Your task to perform on an android device: Is it going to rain today? Image 0: 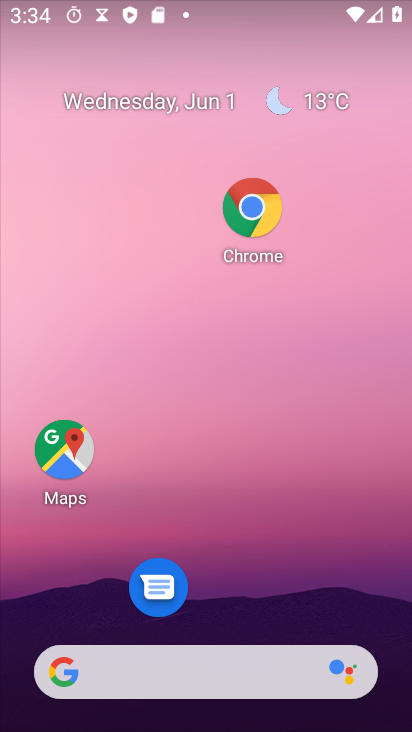
Step 0: drag from (244, 529) to (199, 236)
Your task to perform on an android device: Is it going to rain today? Image 1: 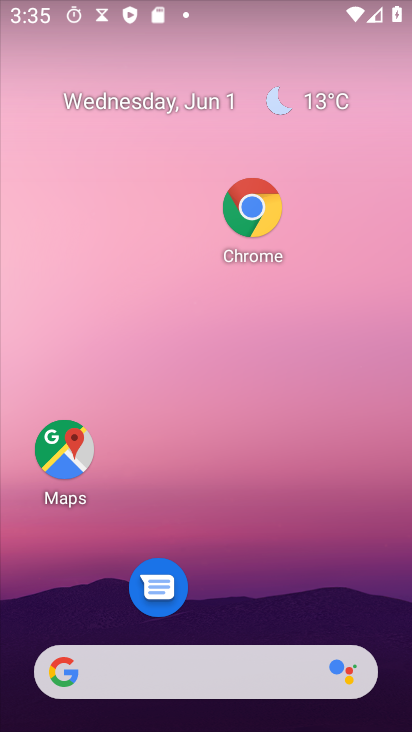
Step 1: drag from (9, 201) to (411, 377)
Your task to perform on an android device: Is it going to rain today? Image 2: 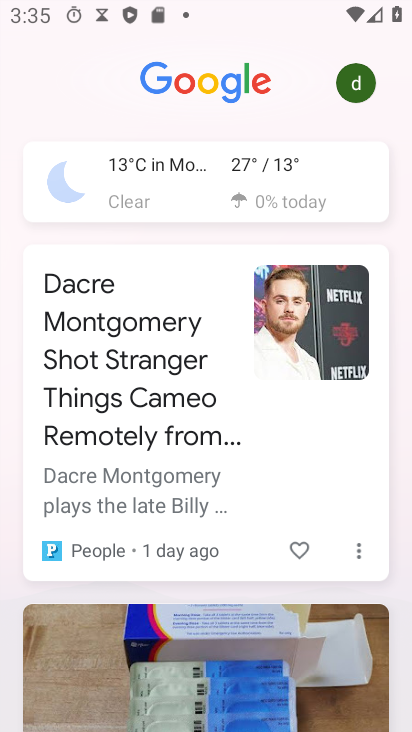
Step 2: click (172, 185)
Your task to perform on an android device: Is it going to rain today? Image 3: 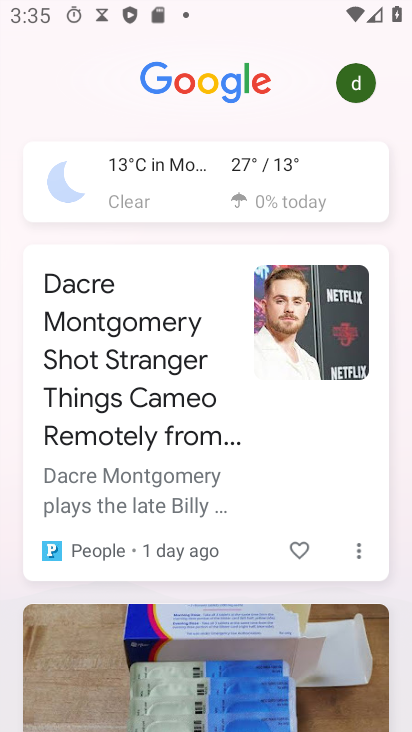
Step 3: click (174, 185)
Your task to perform on an android device: Is it going to rain today? Image 4: 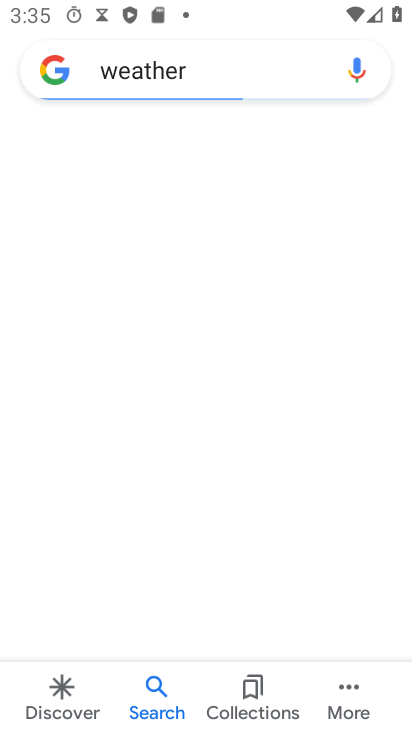
Step 4: click (173, 186)
Your task to perform on an android device: Is it going to rain today? Image 5: 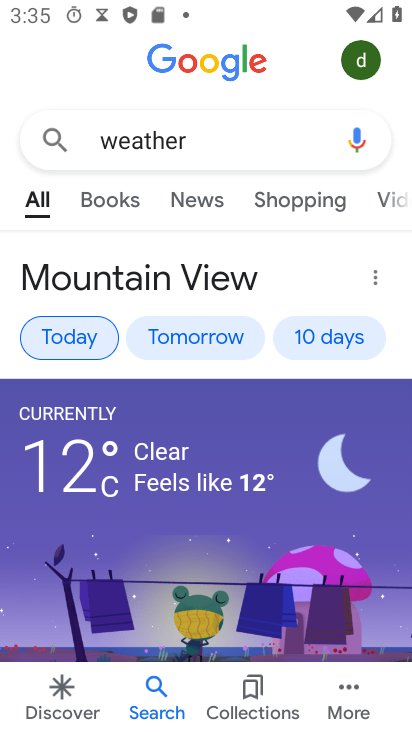
Step 5: task complete